Your task to perform on an android device: Open my contact list Image 0: 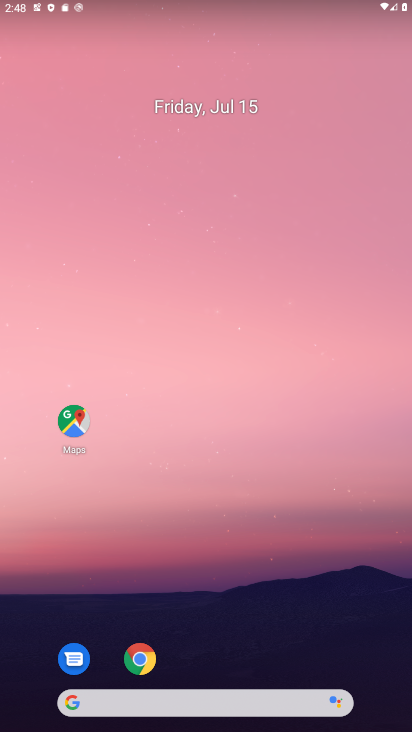
Step 0: drag from (184, 620) to (276, 256)
Your task to perform on an android device: Open my contact list Image 1: 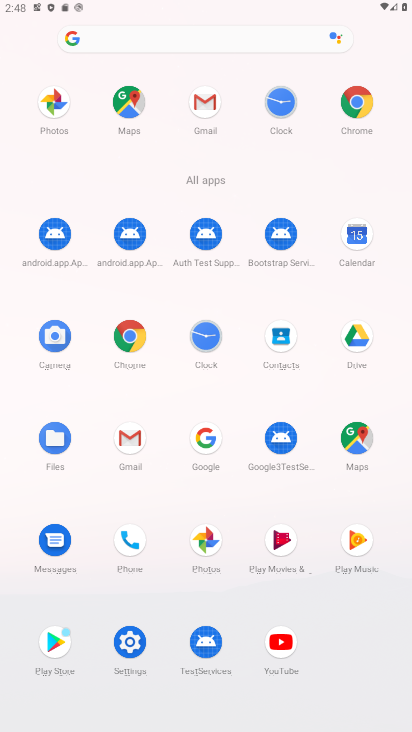
Step 1: click (289, 330)
Your task to perform on an android device: Open my contact list Image 2: 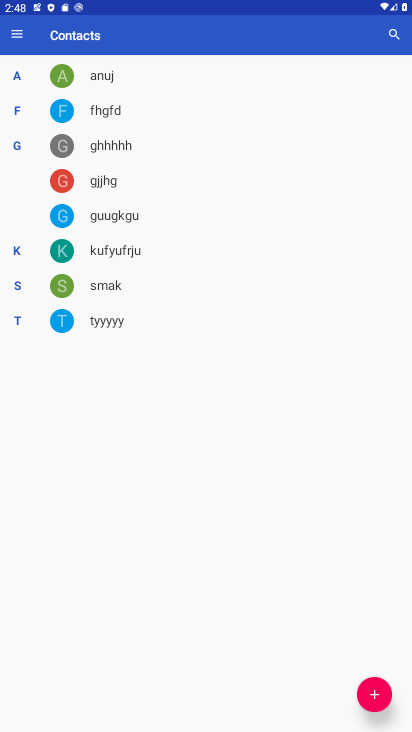
Step 2: task complete